Your task to perform on an android device: find snoozed emails in the gmail app Image 0: 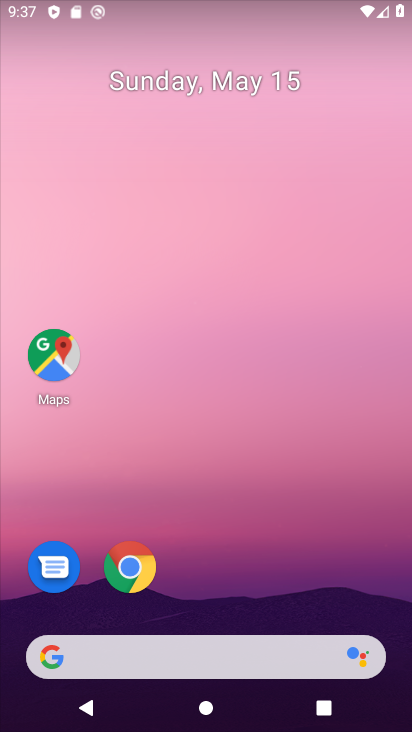
Step 0: drag from (270, 548) to (276, 71)
Your task to perform on an android device: find snoozed emails in the gmail app Image 1: 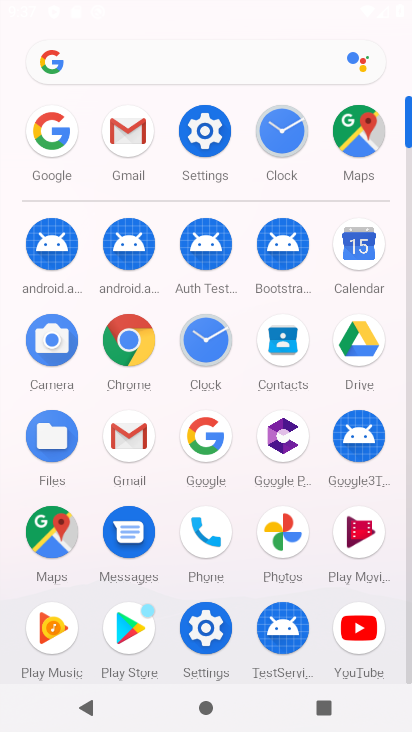
Step 1: click (129, 124)
Your task to perform on an android device: find snoozed emails in the gmail app Image 2: 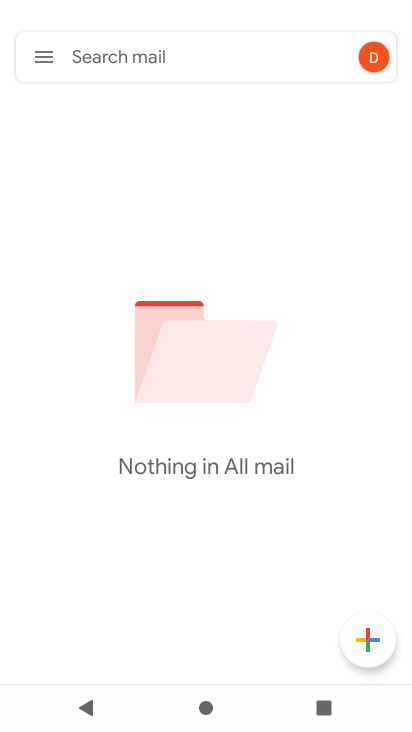
Step 2: click (43, 67)
Your task to perform on an android device: find snoozed emails in the gmail app Image 3: 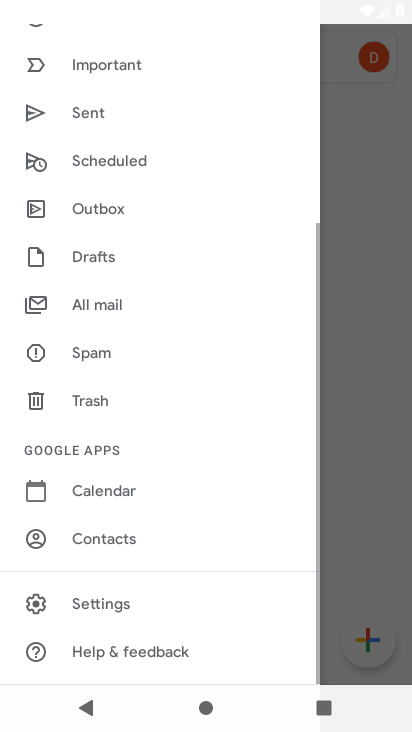
Step 3: drag from (180, 195) to (218, 434)
Your task to perform on an android device: find snoozed emails in the gmail app Image 4: 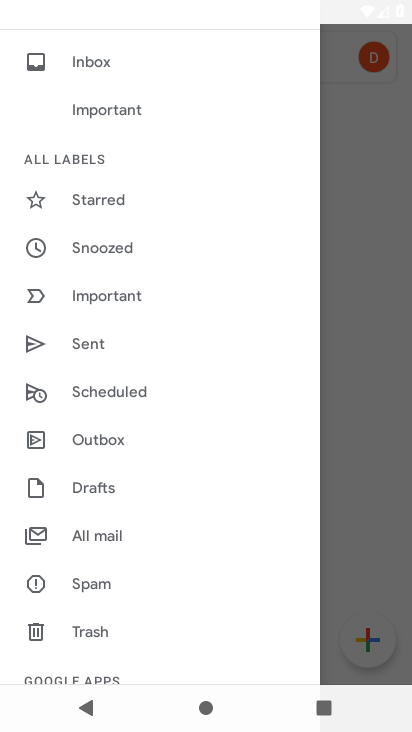
Step 4: click (104, 244)
Your task to perform on an android device: find snoozed emails in the gmail app Image 5: 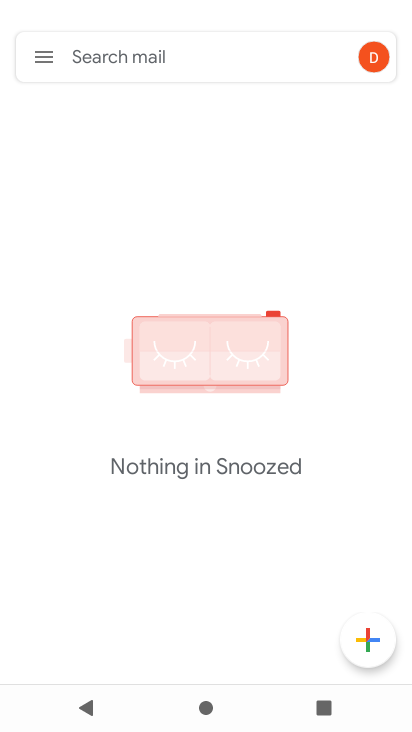
Step 5: task complete